Your task to perform on an android device: toggle show notifications on the lock screen Image 0: 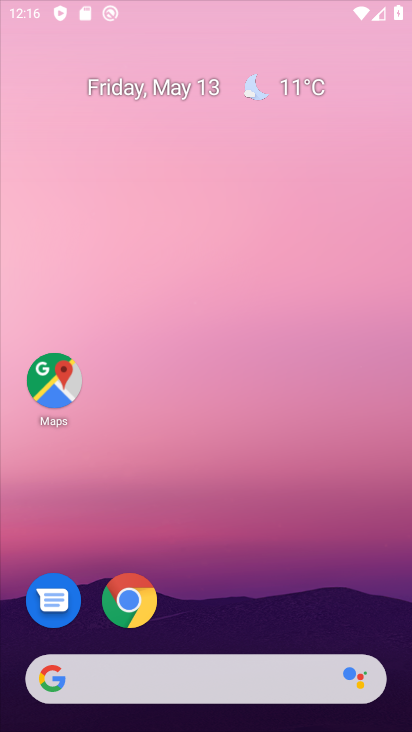
Step 0: drag from (307, 588) to (339, 141)
Your task to perform on an android device: toggle show notifications on the lock screen Image 1: 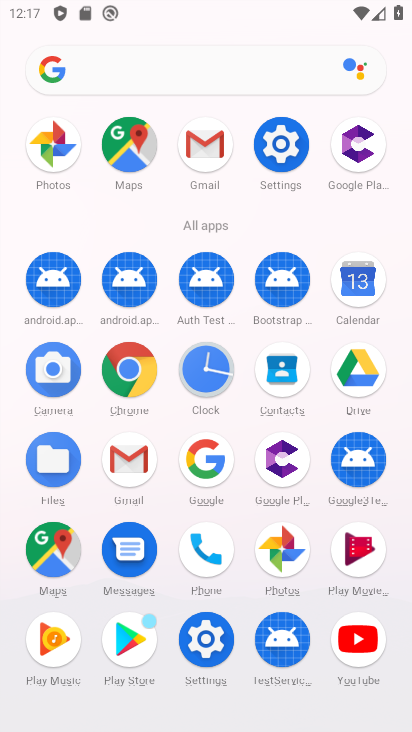
Step 1: click (274, 166)
Your task to perform on an android device: toggle show notifications on the lock screen Image 2: 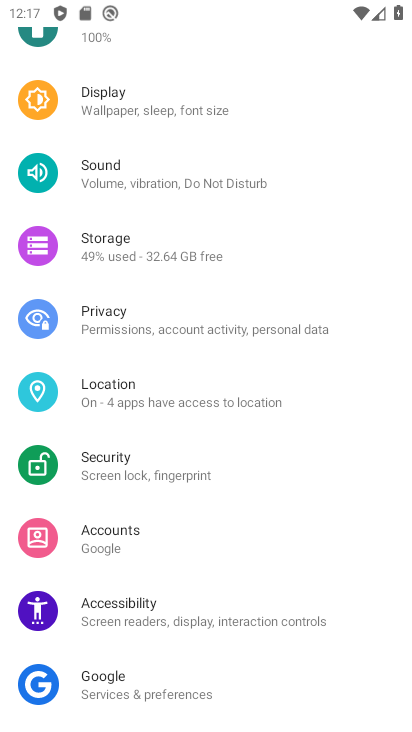
Step 2: drag from (151, 163) to (163, 243)
Your task to perform on an android device: toggle show notifications on the lock screen Image 3: 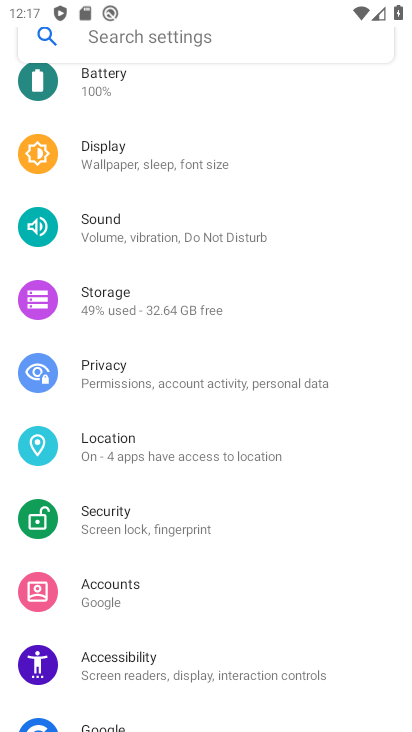
Step 3: drag from (163, 243) to (209, 167)
Your task to perform on an android device: toggle show notifications on the lock screen Image 4: 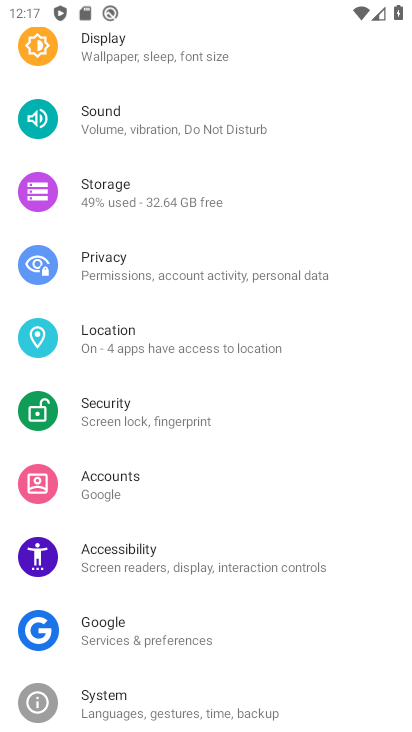
Step 4: drag from (209, 167) to (215, 563)
Your task to perform on an android device: toggle show notifications on the lock screen Image 5: 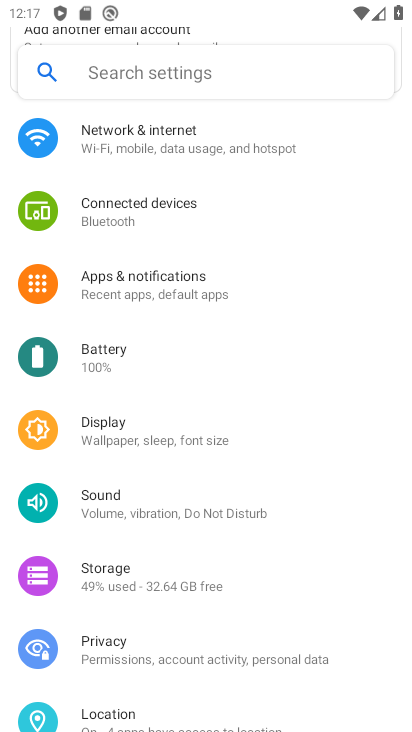
Step 5: drag from (174, 111) to (182, 439)
Your task to perform on an android device: toggle show notifications on the lock screen Image 6: 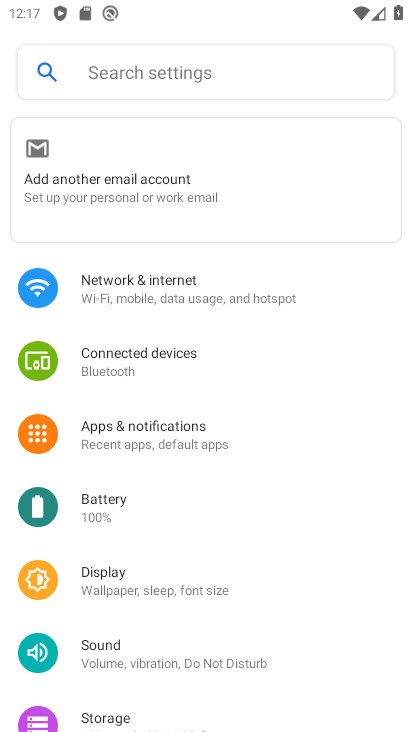
Step 6: click (182, 439)
Your task to perform on an android device: toggle show notifications on the lock screen Image 7: 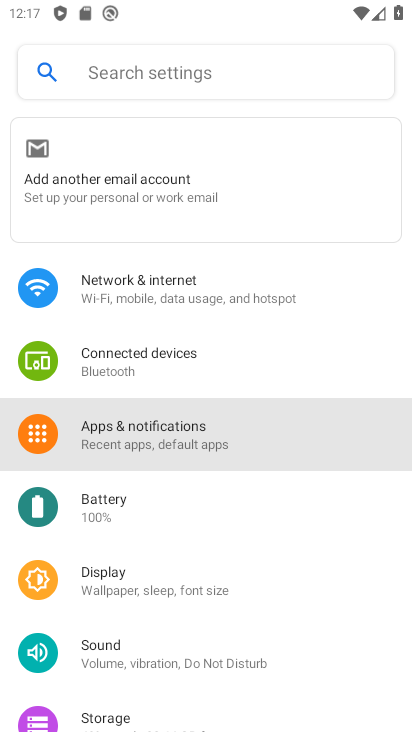
Step 7: click (243, 416)
Your task to perform on an android device: toggle show notifications on the lock screen Image 8: 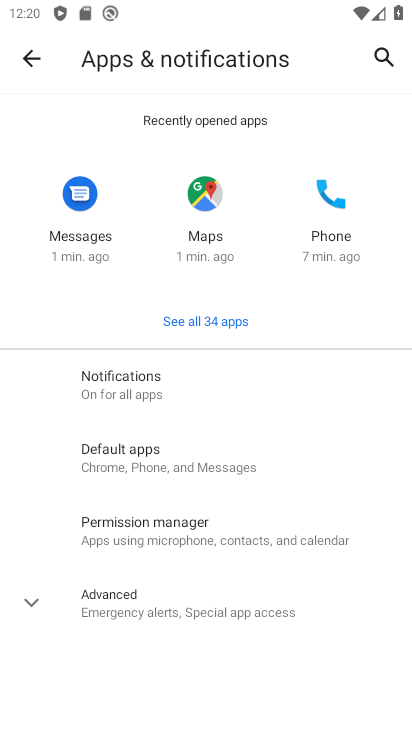
Step 8: click (173, 381)
Your task to perform on an android device: toggle show notifications on the lock screen Image 9: 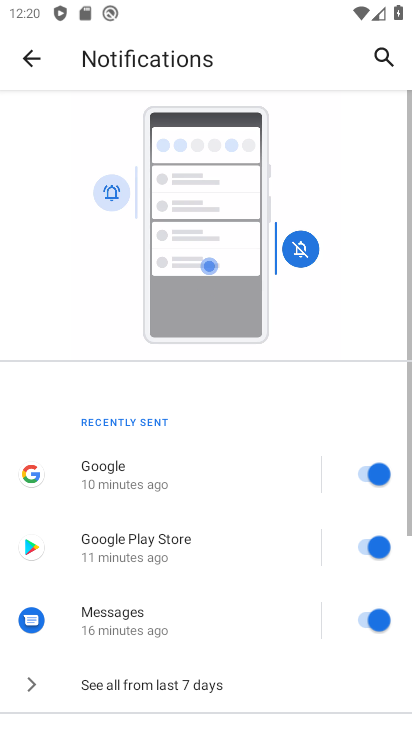
Step 9: drag from (209, 647) to (288, 222)
Your task to perform on an android device: toggle show notifications on the lock screen Image 10: 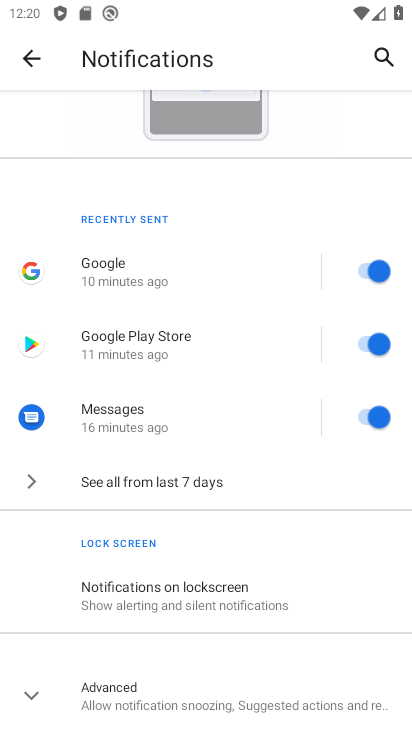
Step 10: click (251, 585)
Your task to perform on an android device: toggle show notifications on the lock screen Image 11: 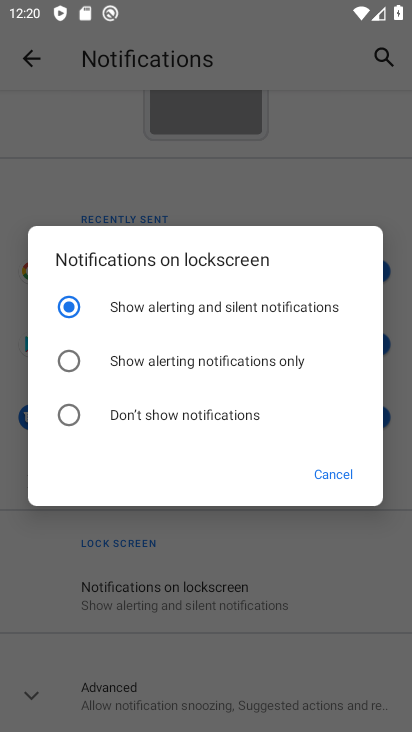
Step 11: click (274, 371)
Your task to perform on an android device: toggle show notifications on the lock screen Image 12: 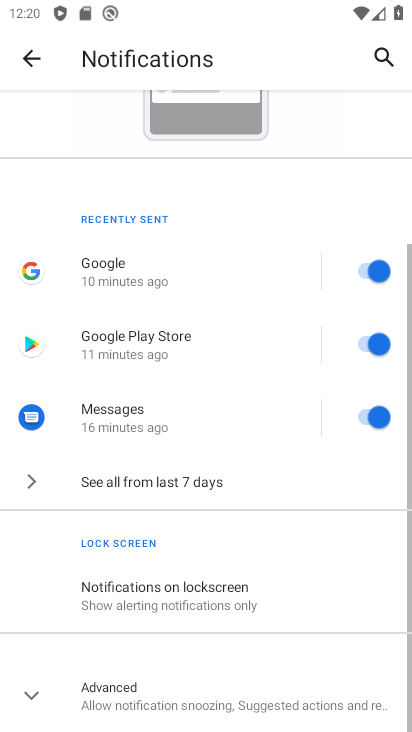
Step 12: task complete